Your task to perform on an android device: turn off javascript in the chrome app Image 0: 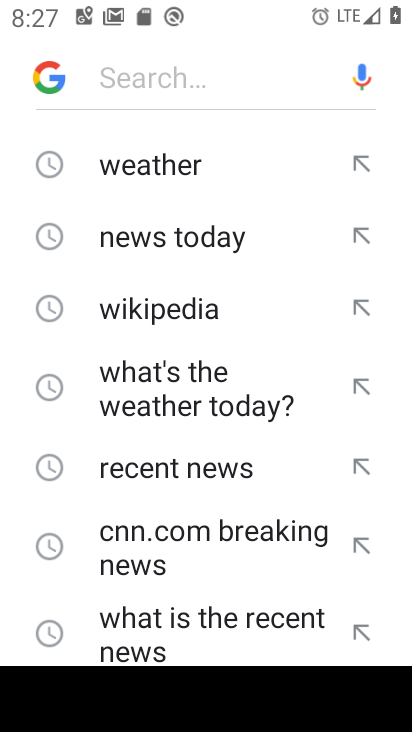
Step 0: press home button
Your task to perform on an android device: turn off javascript in the chrome app Image 1: 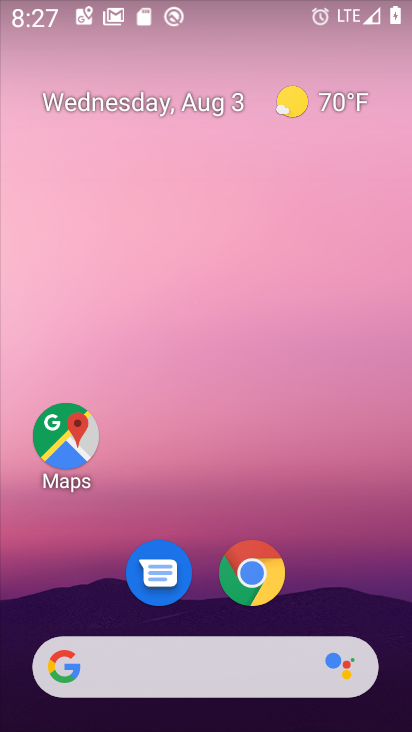
Step 1: click (255, 577)
Your task to perform on an android device: turn off javascript in the chrome app Image 2: 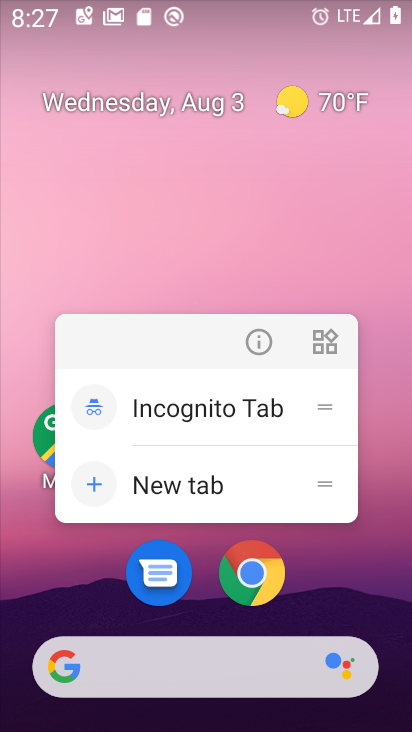
Step 2: click (256, 576)
Your task to perform on an android device: turn off javascript in the chrome app Image 3: 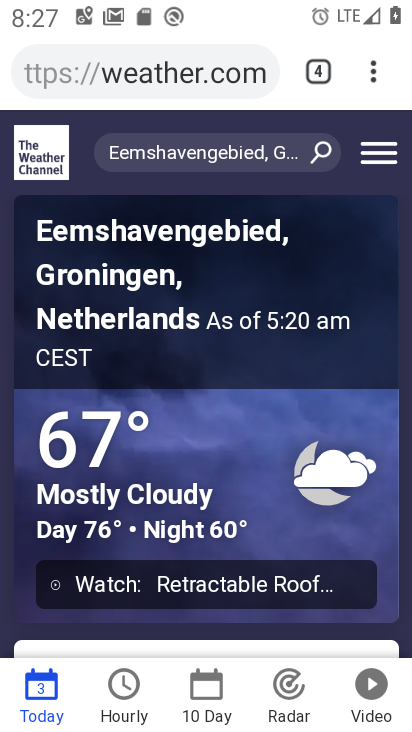
Step 3: click (374, 73)
Your task to perform on an android device: turn off javascript in the chrome app Image 4: 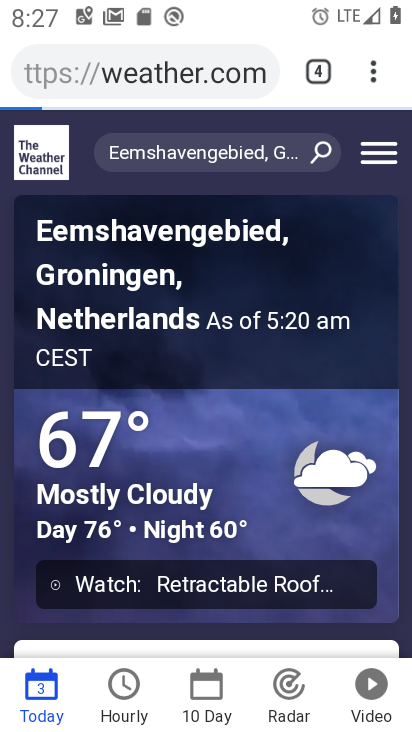
Step 4: click (375, 71)
Your task to perform on an android device: turn off javascript in the chrome app Image 5: 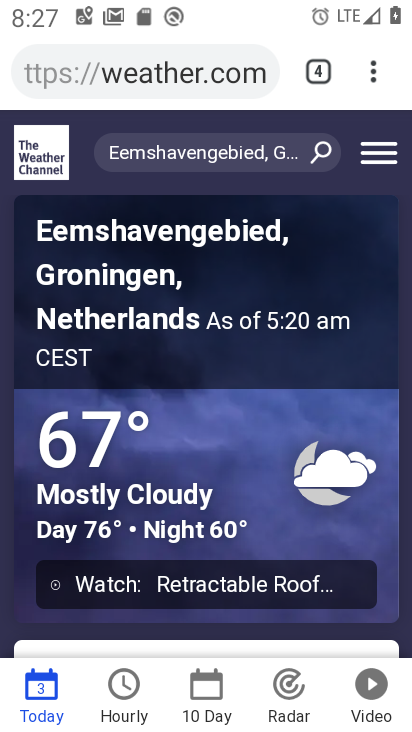
Step 5: click (375, 71)
Your task to perform on an android device: turn off javascript in the chrome app Image 6: 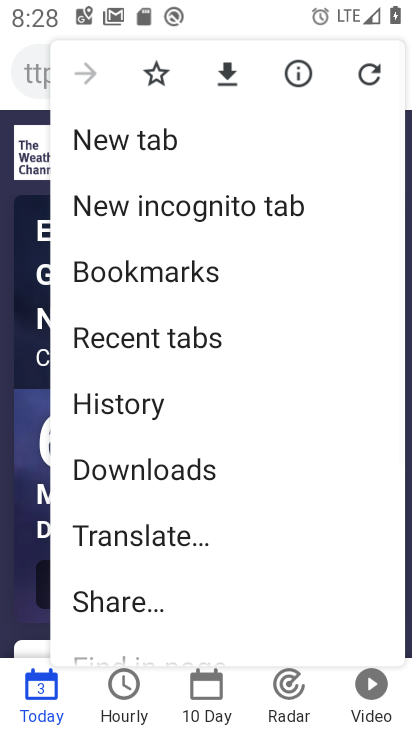
Step 6: drag from (211, 587) to (230, 170)
Your task to perform on an android device: turn off javascript in the chrome app Image 7: 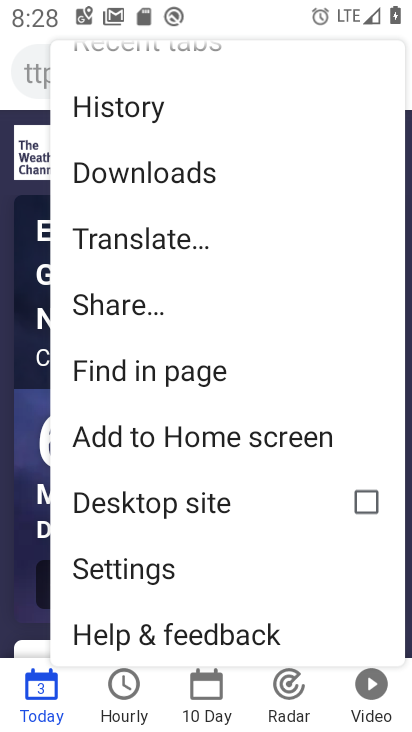
Step 7: click (129, 576)
Your task to perform on an android device: turn off javascript in the chrome app Image 8: 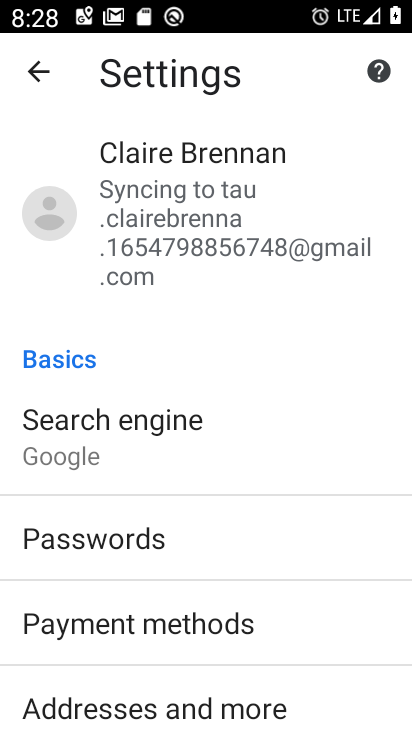
Step 8: drag from (369, 636) to (324, 152)
Your task to perform on an android device: turn off javascript in the chrome app Image 9: 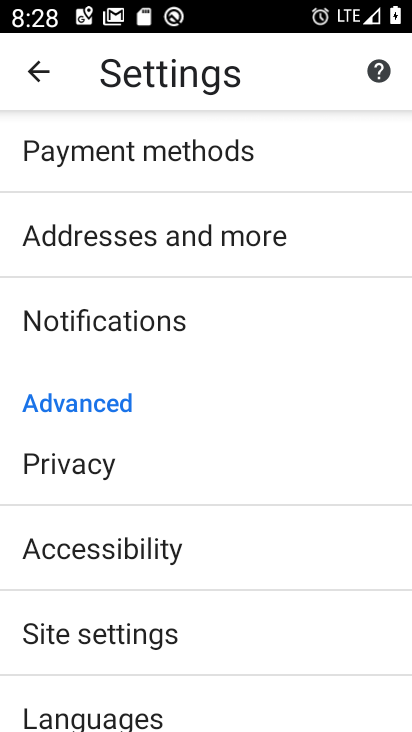
Step 9: click (97, 643)
Your task to perform on an android device: turn off javascript in the chrome app Image 10: 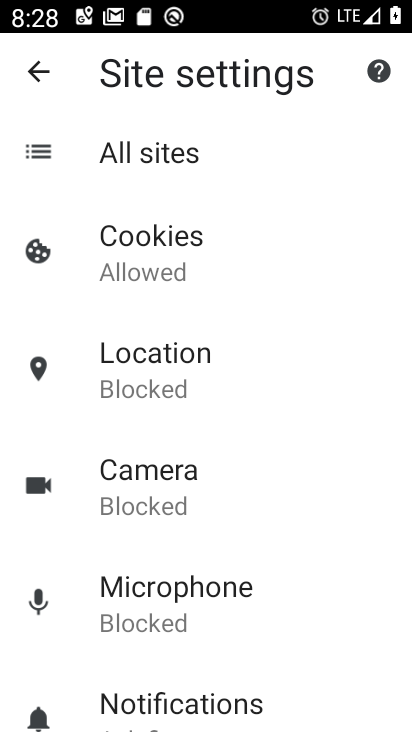
Step 10: drag from (372, 647) to (339, 200)
Your task to perform on an android device: turn off javascript in the chrome app Image 11: 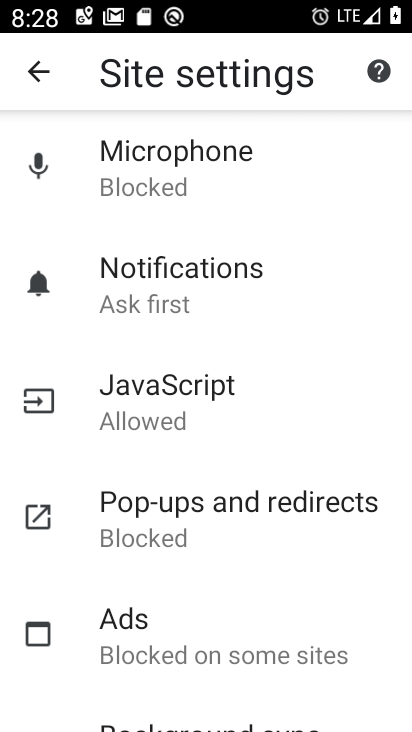
Step 11: click (141, 416)
Your task to perform on an android device: turn off javascript in the chrome app Image 12: 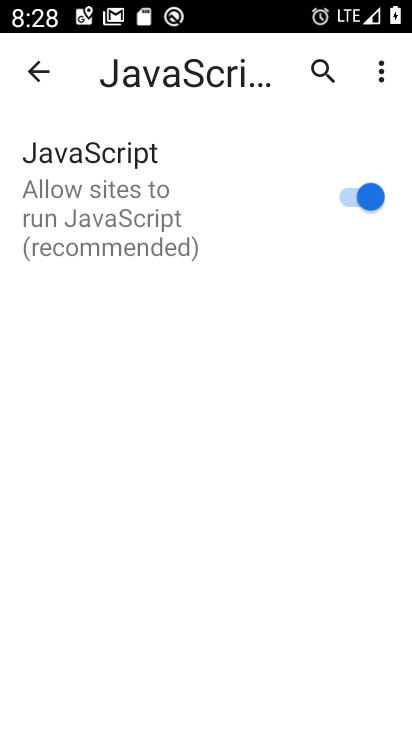
Step 12: click (367, 207)
Your task to perform on an android device: turn off javascript in the chrome app Image 13: 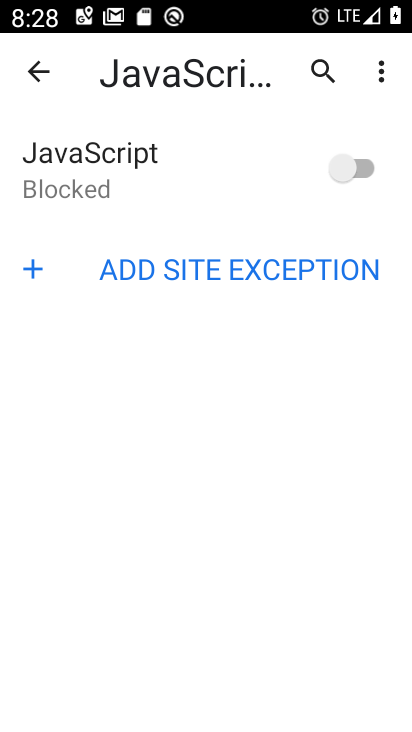
Step 13: task complete